Your task to perform on an android device: Search for logitech g pro on amazon, select the first entry, and add it to the cart. Image 0: 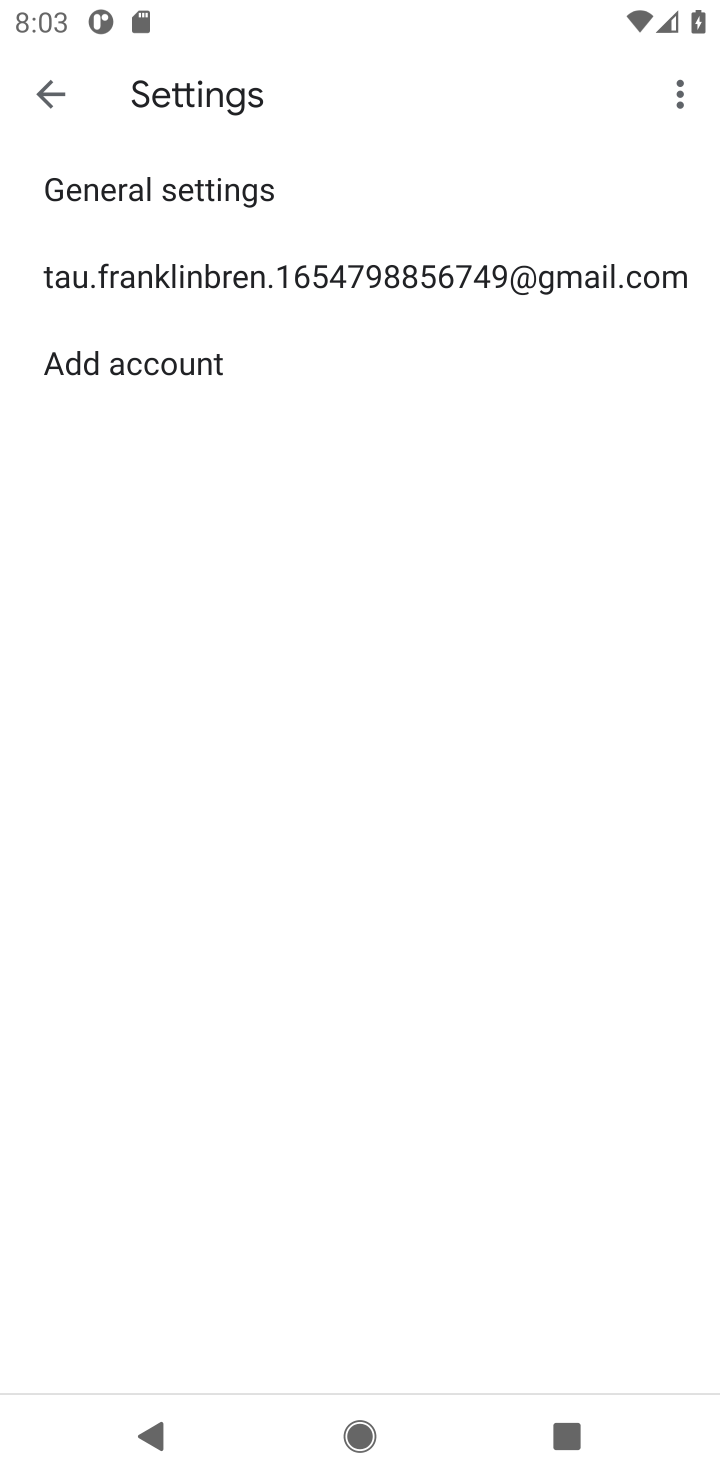
Step 0: press home button
Your task to perform on an android device: Search for logitech g pro on amazon, select the first entry, and add it to the cart. Image 1: 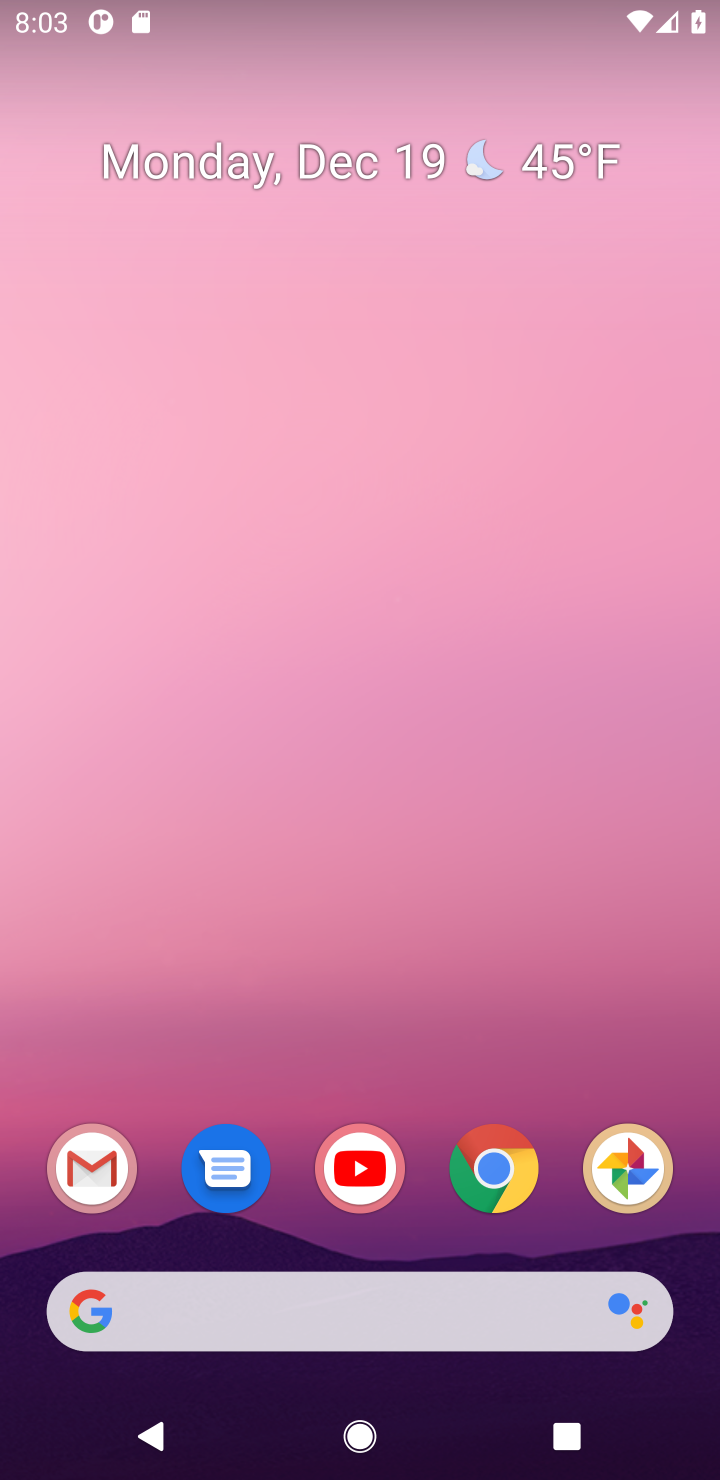
Step 1: click (483, 1182)
Your task to perform on an android device: Search for logitech g pro on amazon, select the first entry, and add it to the cart. Image 2: 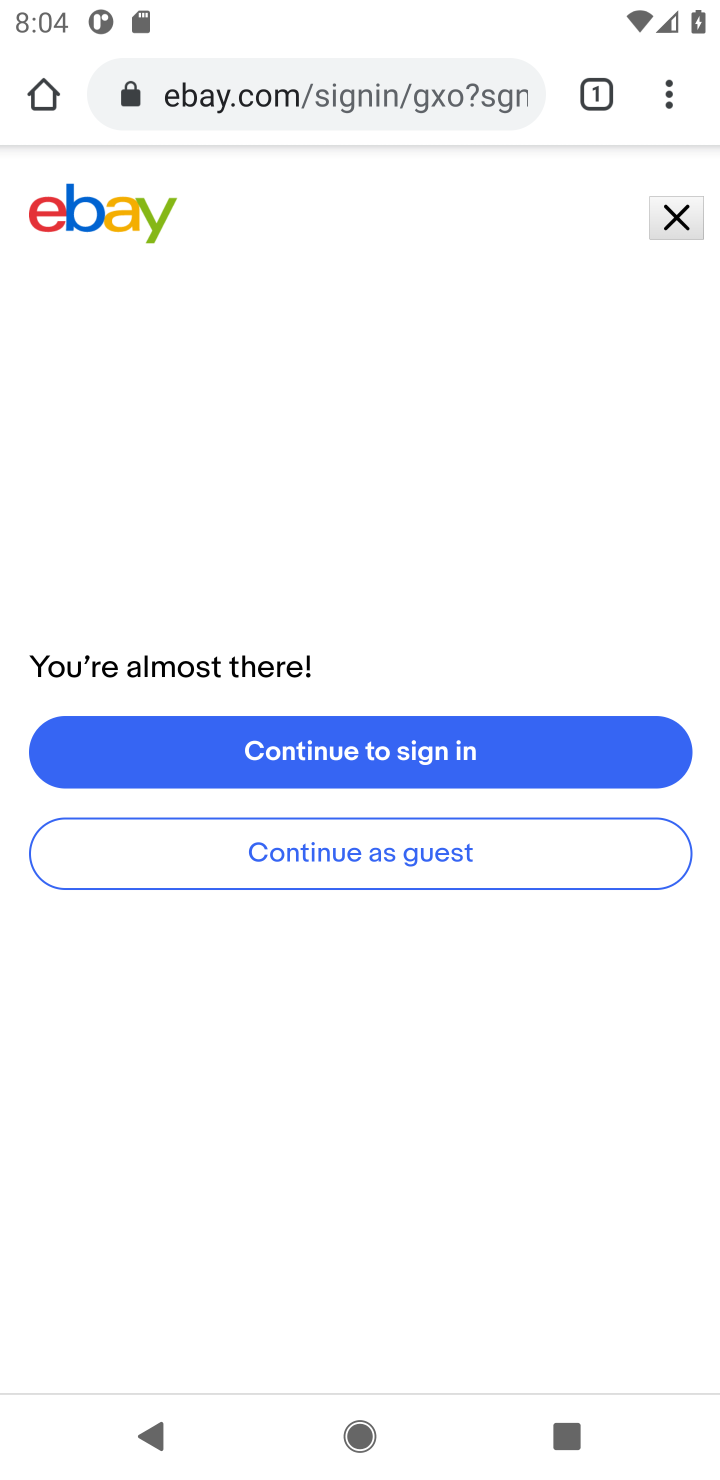
Step 2: click (259, 93)
Your task to perform on an android device: Search for logitech g pro on amazon, select the first entry, and add it to the cart. Image 3: 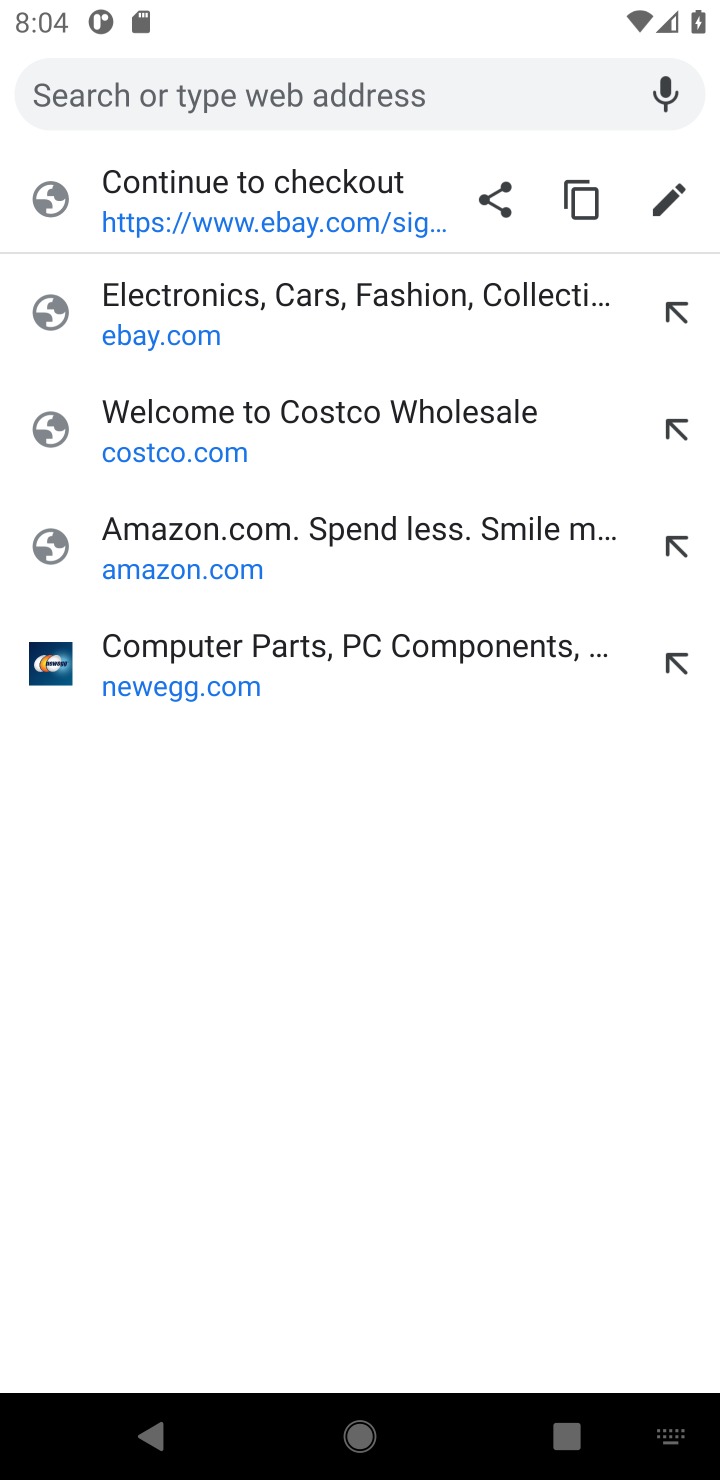
Step 3: click (173, 540)
Your task to perform on an android device: Search for logitech g pro on amazon, select the first entry, and add it to the cart. Image 4: 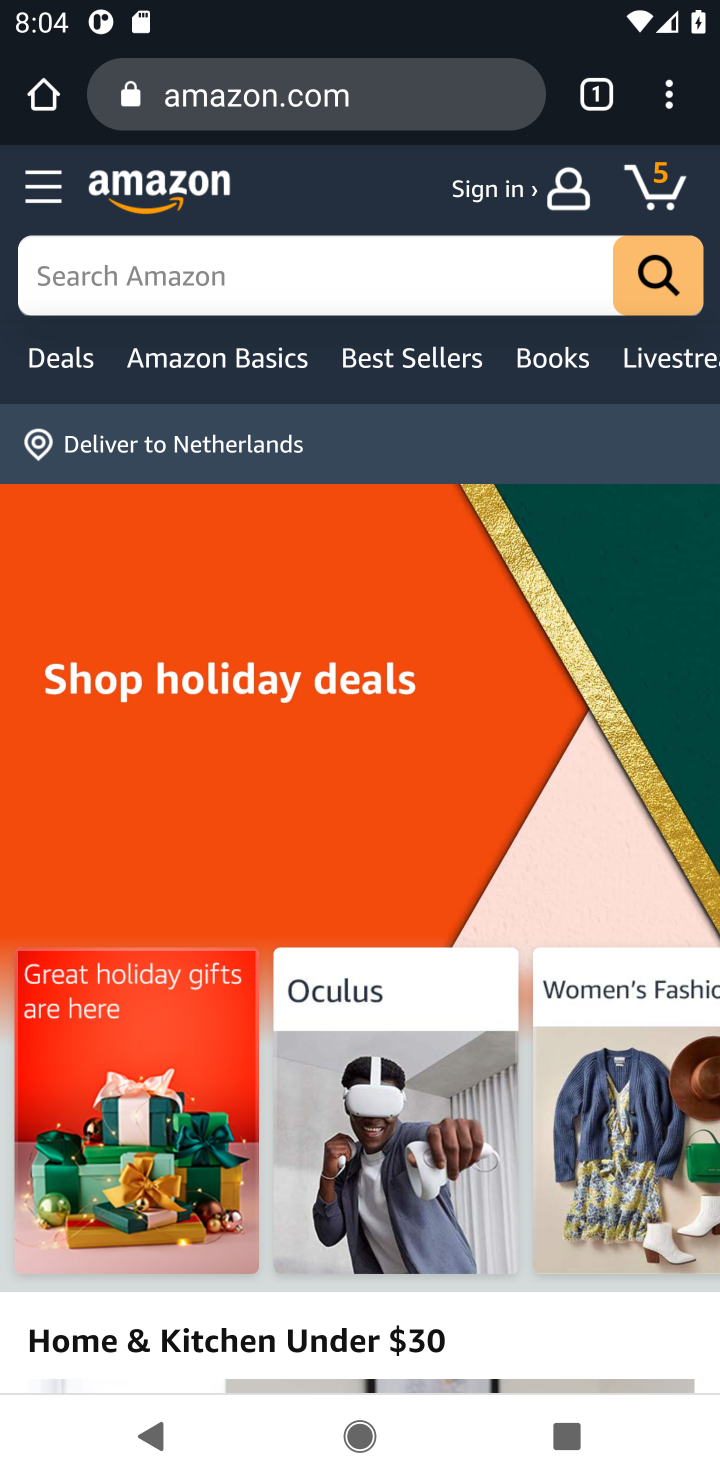
Step 4: click (172, 274)
Your task to perform on an android device: Search for logitech g pro on amazon, select the first entry, and add it to the cart. Image 5: 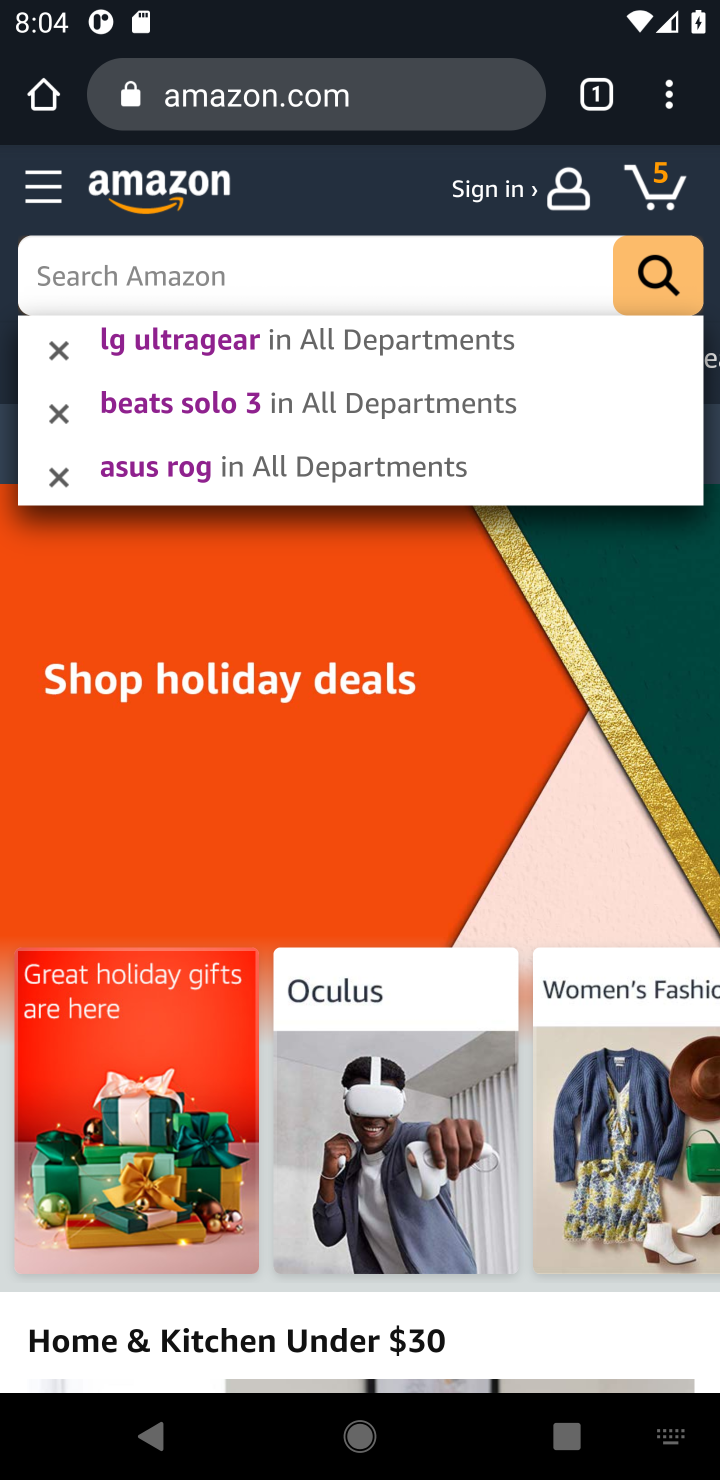
Step 5: type " logitech g pro"
Your task to perform on an android device: Search for logitech g pro on amazon, select the first entry, and add it to the cart. Image 6: 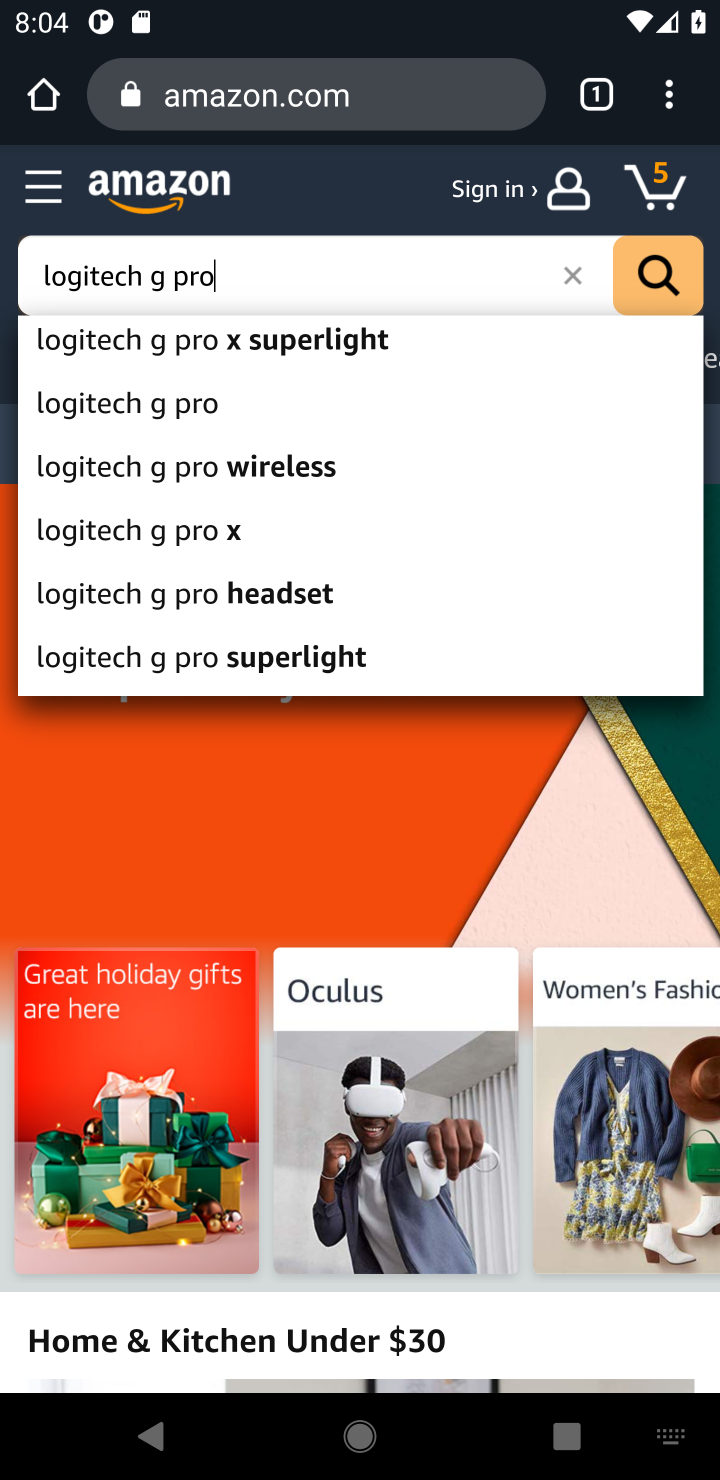
Step 6: click (152, 416)
Your task to perform on an android device: Search for logitech g pro on amazon, select the first entry, and add it to the cart. Image 7: 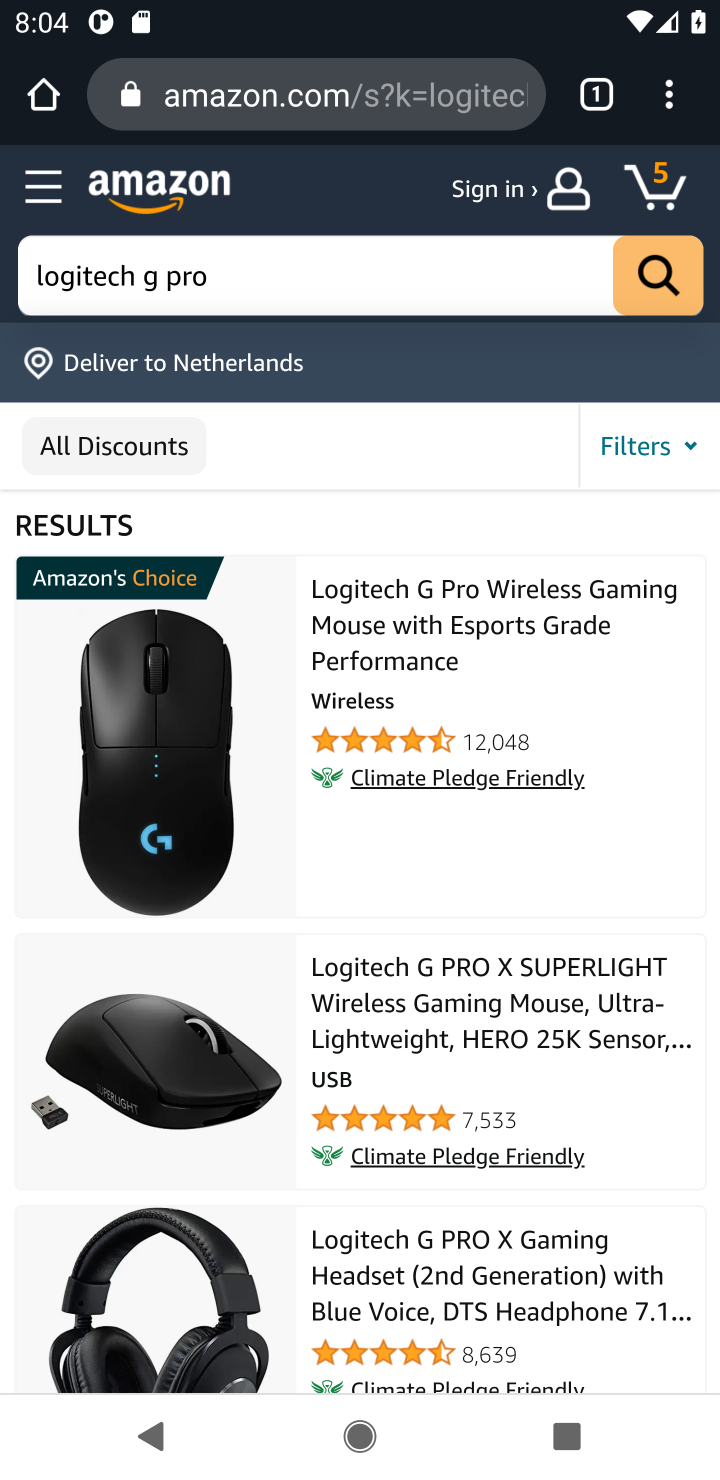
Step 7: click (405, 622)
Your task to perform on an android device: Search for logitech g pro on amazon, select the first entry, and add it to the cart. Image 8: 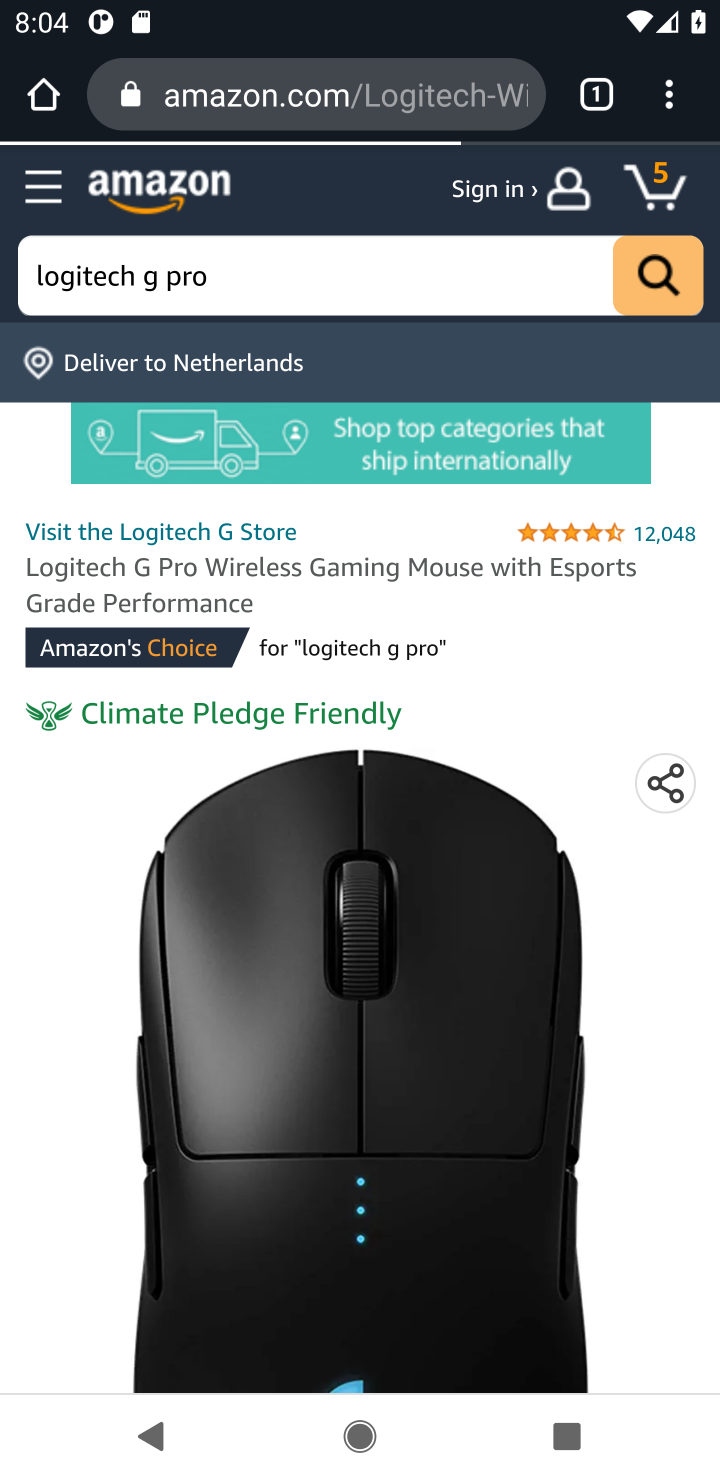
Step 8: task complete